Your task to perform on an android device: open sync settings in chrome Image 0: 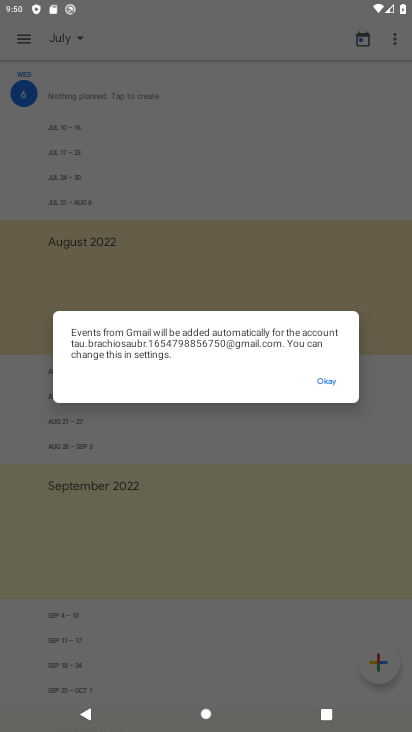
Step 0: press home button
Your task to perform on an android device: open sync settings in chrome Image 1: 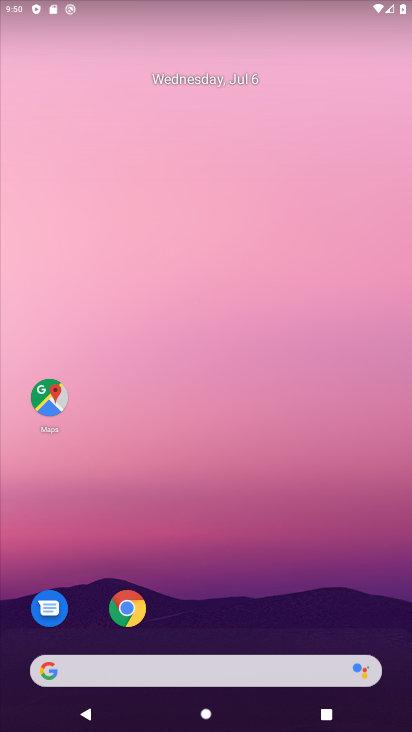
Step 1: drag from (192, 633) to (233, 0)
Your task to perform on an android device: open sync settings in chrome Image 2: 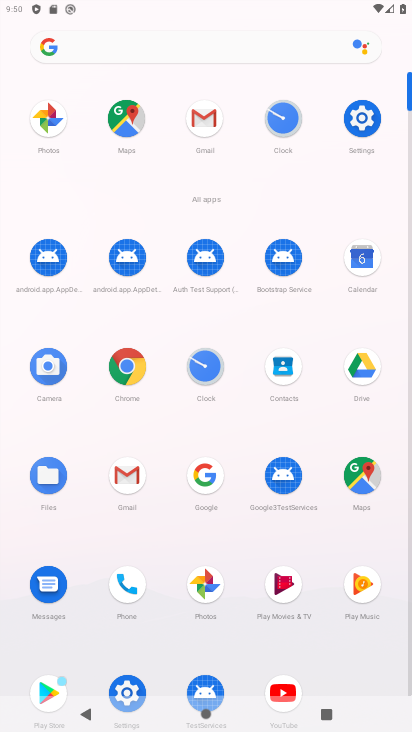
Step 2: click (131, 375)
Your task to perform on an android device: open sync settings in chrome Image 3: 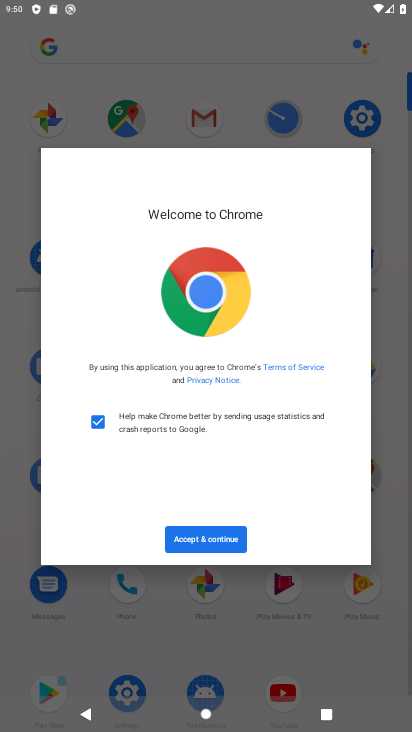
Step 3: click (212, 537)
Your task to perform on an android device: open sync settings in chrome Image 4: 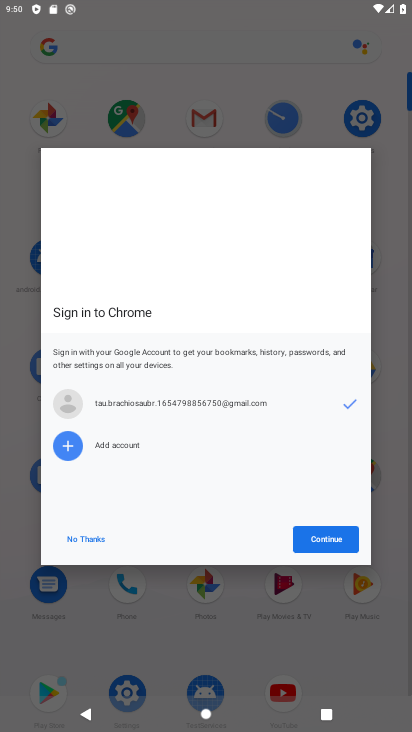
Step 4: click (337, 541)
Your task to perform on an android device: open sync settings in chrome Image 5: 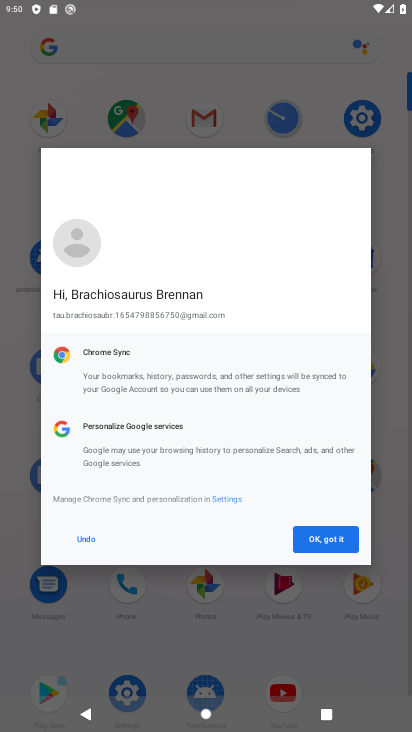
Step 5: click (339, 540)
Your task to perform on an android device: open sync settings in chrome Image 6: 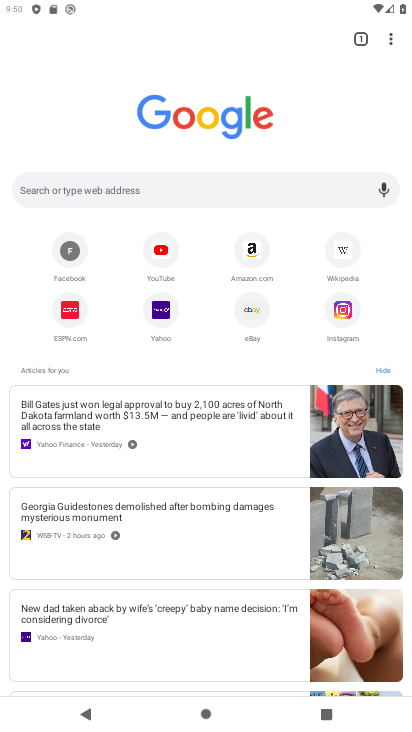
Step 6: click (386, 40)
Your task to perform on an android device: open sync settings in chrome Image 7: 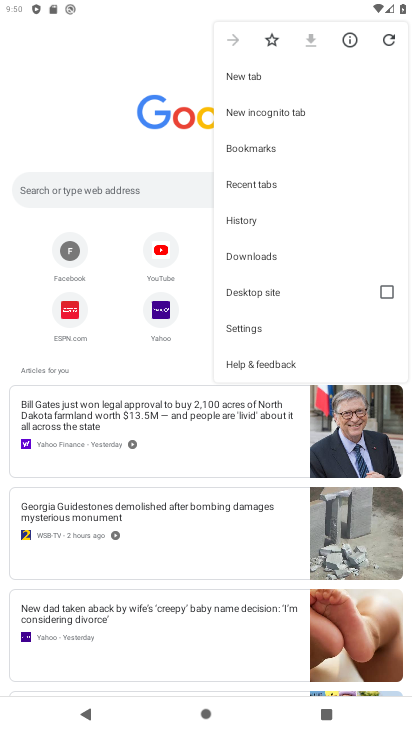
Step 7: click (254, 323)
Your task to perform on an android device: open sync settings in chrome Image 8: 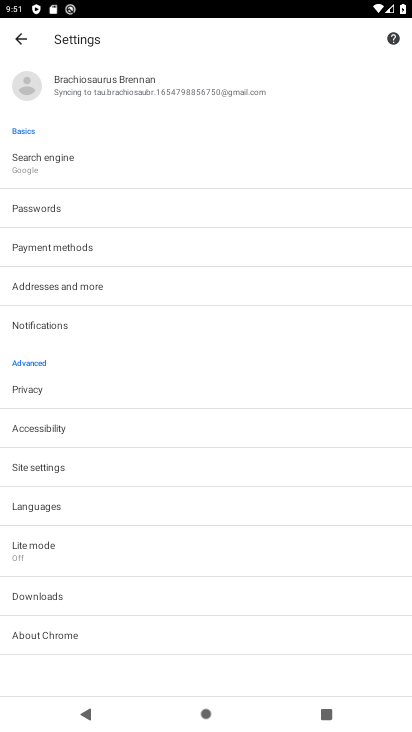
Step 8: click (175, 81)
Your task to perform on an android device: open sync settings in chrome Image 9: 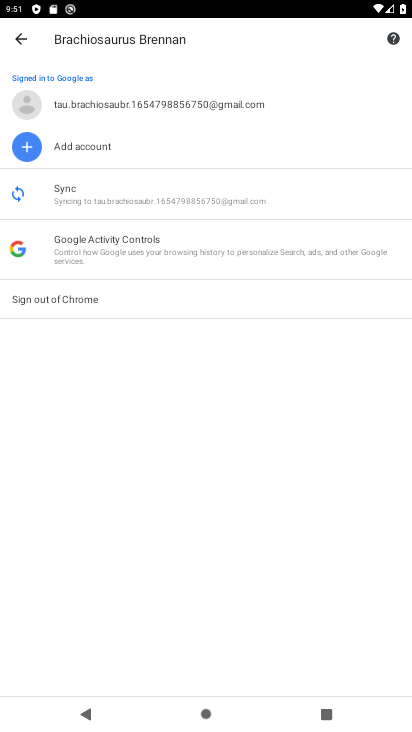
Step 9: click (160, 200)
Your task to perform on an android device: open sync settings in chrome Image 10: 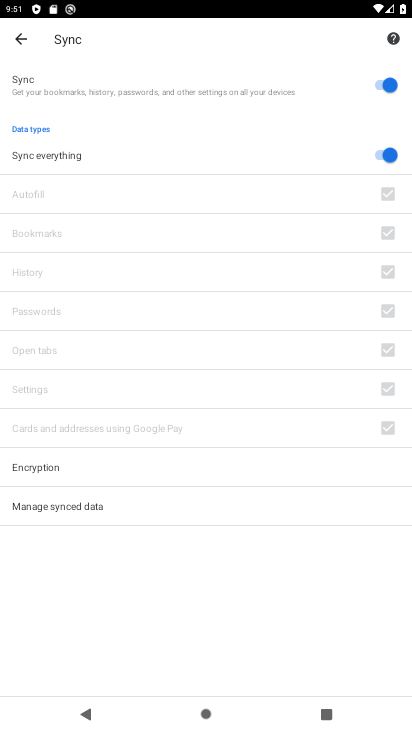
Step 10: task complete